Your task to perform on an android device: toggle notification dots Image 0: 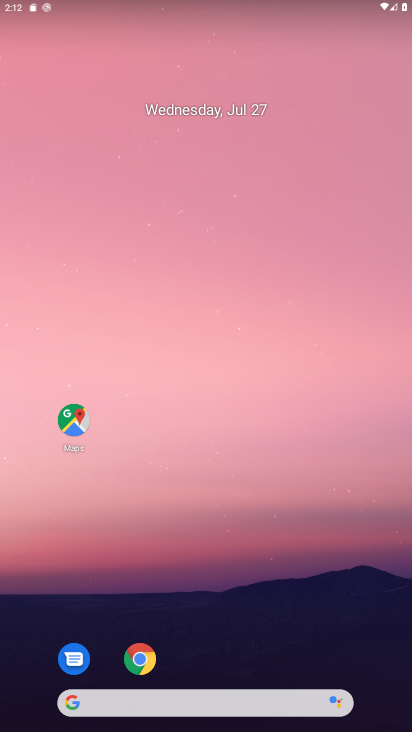
Step 0: drag from (236, 623) to (77, 158)
Your task to perform on an android device: toggle notification dots Image 1: 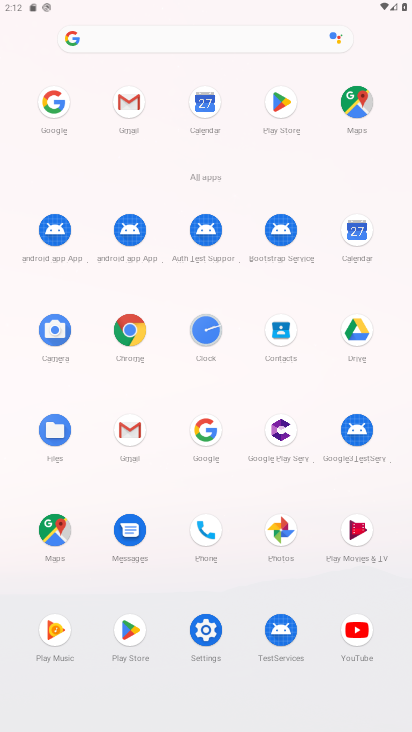
Step 1: click (197, 623)
Your task to perform on an android device: toggle notification dots Image 2: 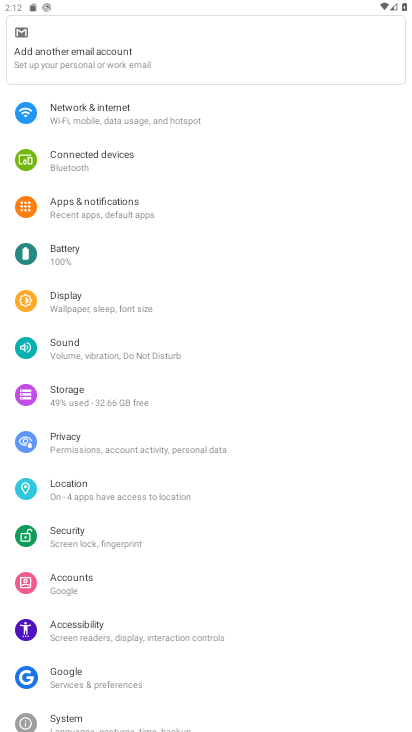
Step 2: click (109, 199)
Your task to perform on an android device: toggle notification dots Image 3: 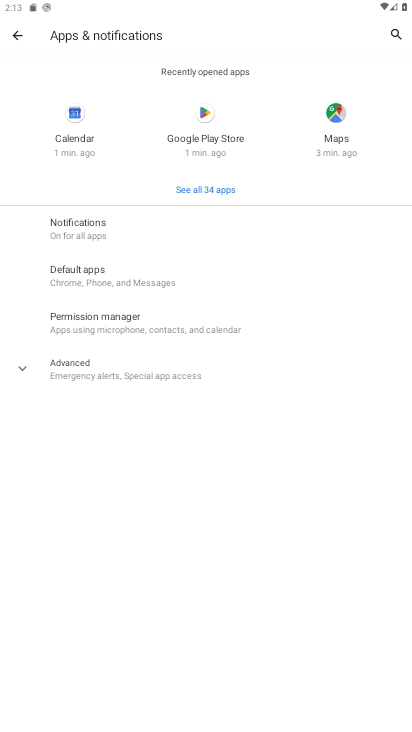
Step 3: click (60, 231)
Your task to perform on an android device: toggle notification dots Image 4: 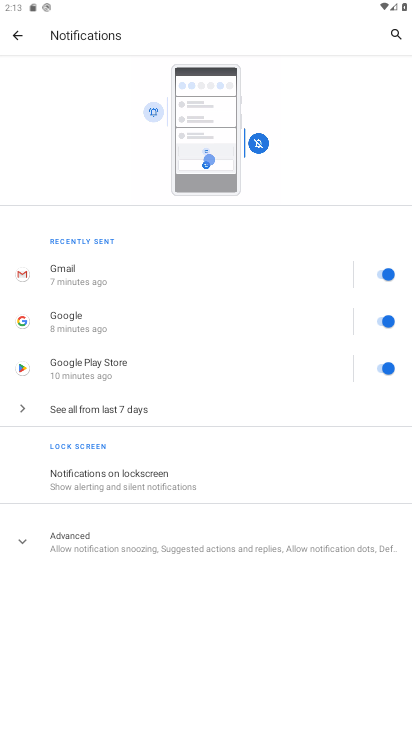
Step 4: click (117, 541)
Your task to perform on an android device: toggle notification dots Image 5: 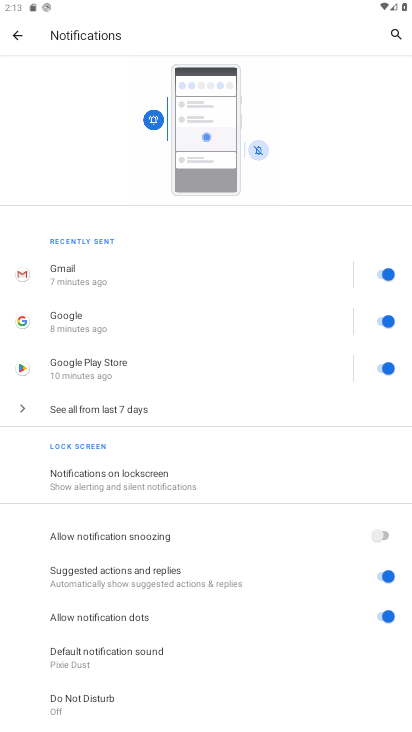
Step 5: click (388, 616)
Your task to perform on an android device: toggle notification dots Image 6: 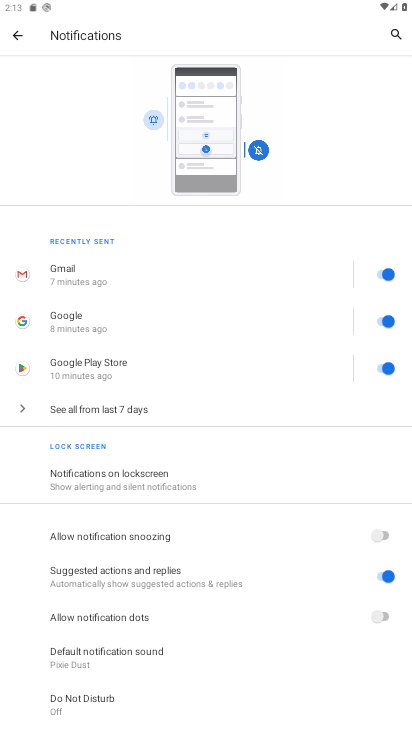
Step 6: task complete